Your task to perform on an android device: open device folders in google photos Image 0: 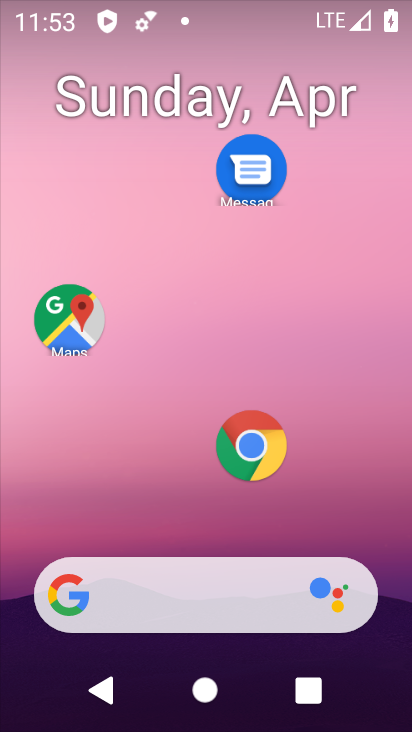
Step 0: drag from (166, 610) to (362, 46)
Your task to perform on an android device: open device folders in google photos Image 1: 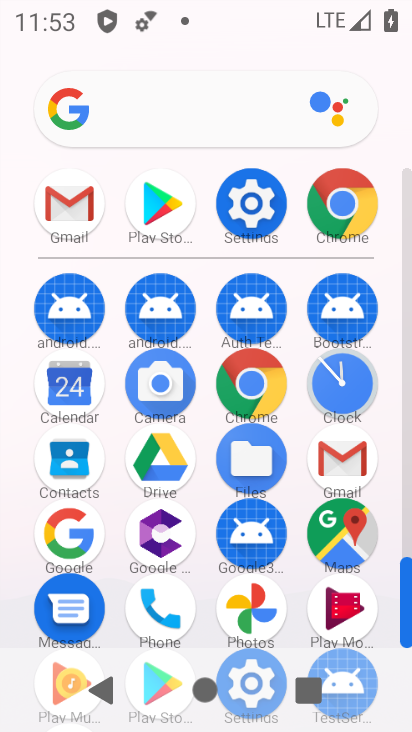
Step 1: click (258, 609)
Your task to perform on an android device: open device folders in google photos Image 2: 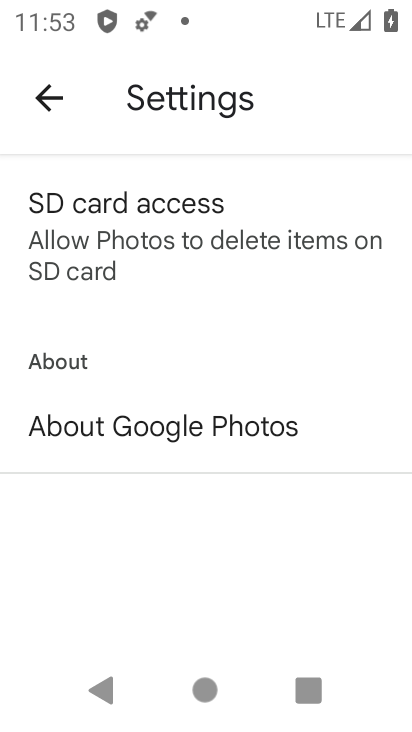
Step 2: click (53, 90)
Your task to perform on an android device: open device folders in google photos Image 3: 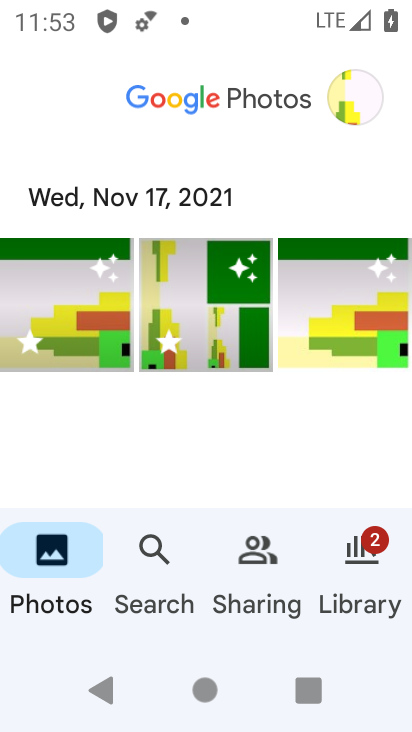
Step 3: click (362, 91)
Your task to perform on an android device: open device folders in google photos Image 4: 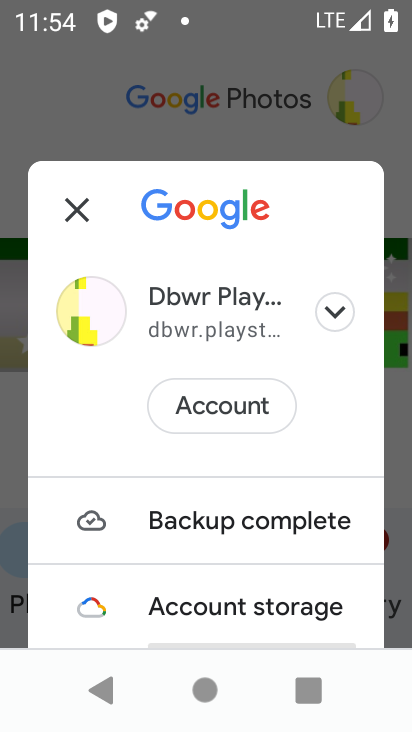
Step 4: drag from (147, 597) to (353, 34)
Your task to perform on an android device: open device folders in google photos Image 5: 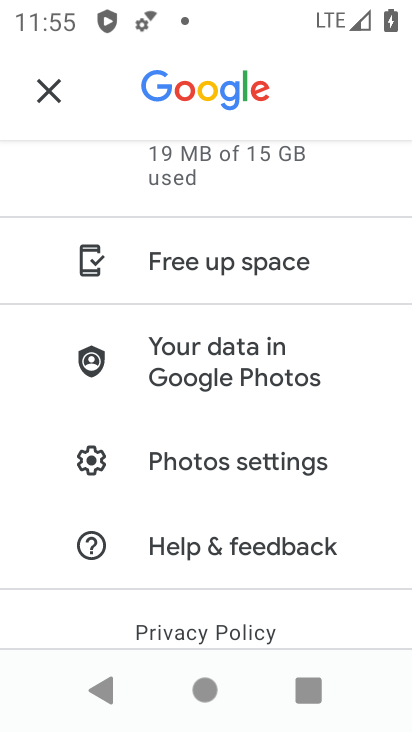
Step 5: click (243, 462)
Your task to perform on an android device: open device folders in google photos Image 6: 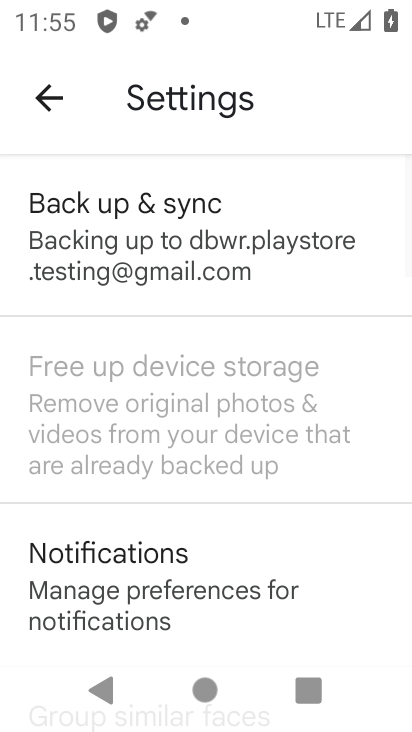
Step 6: task complete